Your task to perform on an android device: Check the news Image 0: 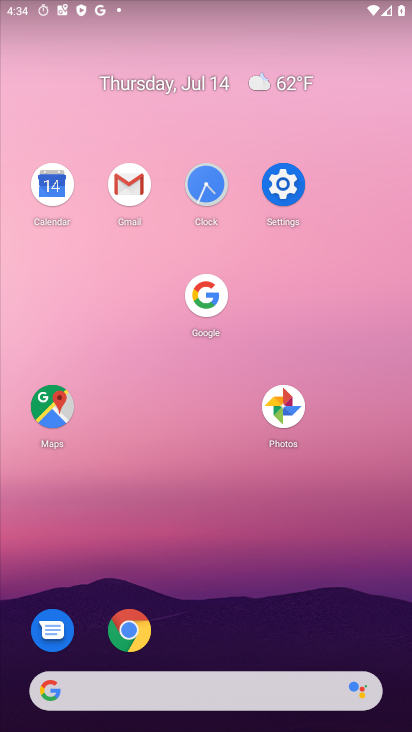
Step 0: click (128, 617)
Your task to perform on an android device: Check the news Image 1: 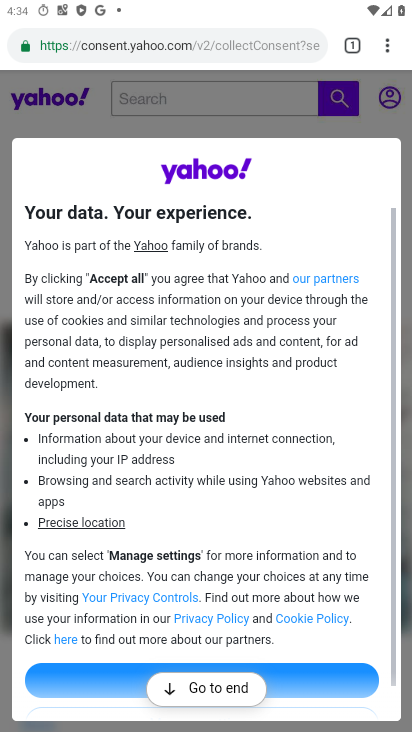
Step 1: click (113, 40)
Your task to perform on an android device: Check the news Image 2: 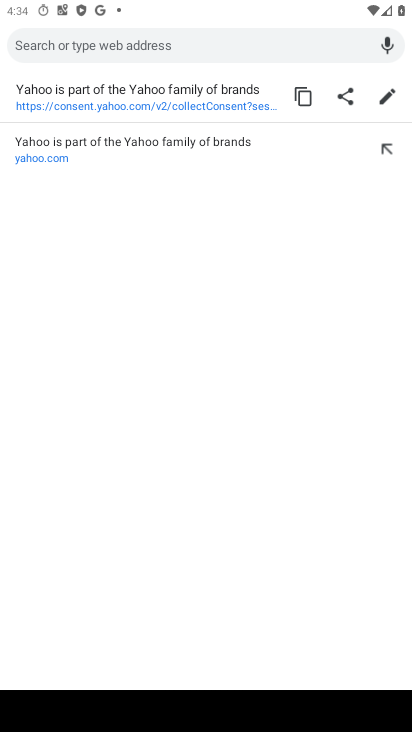
Step 2: type "news"
Your task to perform on an android device: Check the news Image 3: 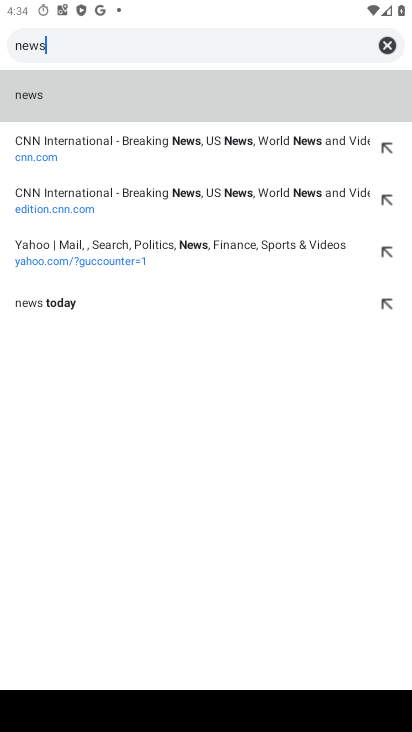
Step 3: click (121, 85)
Your task to perform on an android device: Check the news Image 4: 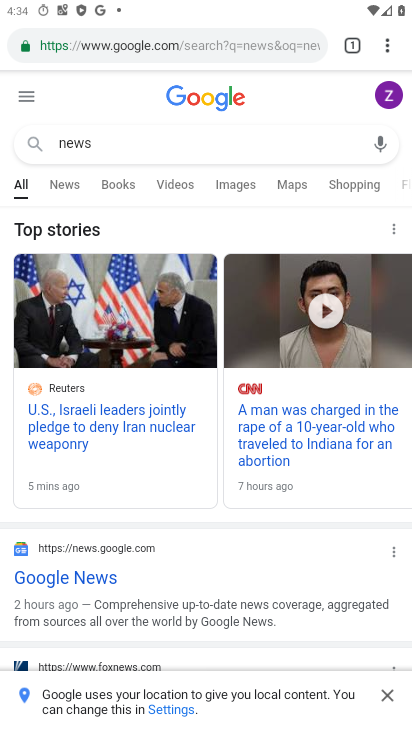
Step 4: task complete